Your task to perform on an android device: turn off translation in the chrome app Image 0: 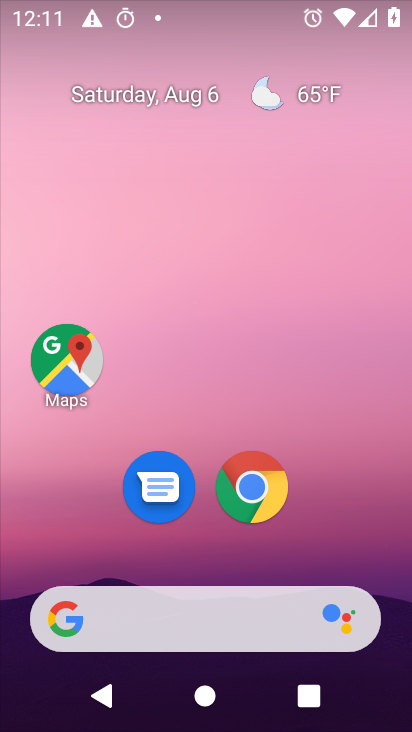
Step 0: click (234, 497)
Your task to perform on an android device: turn off translation in the chrome app Image 1: 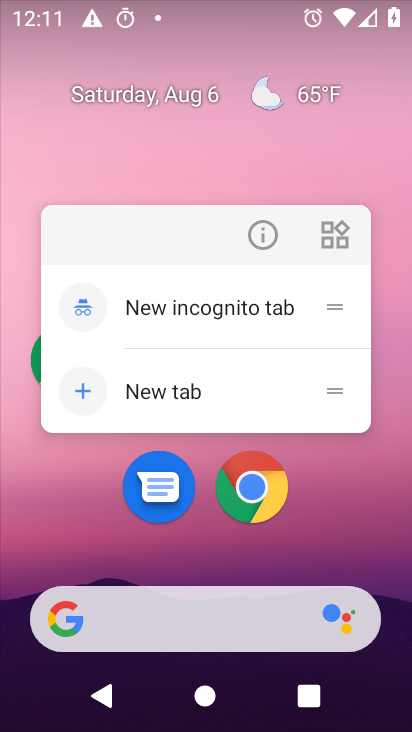
Step 1: click (260, 496)
Your task to perform on an android device: turn off translation in the chrome app Image 2: 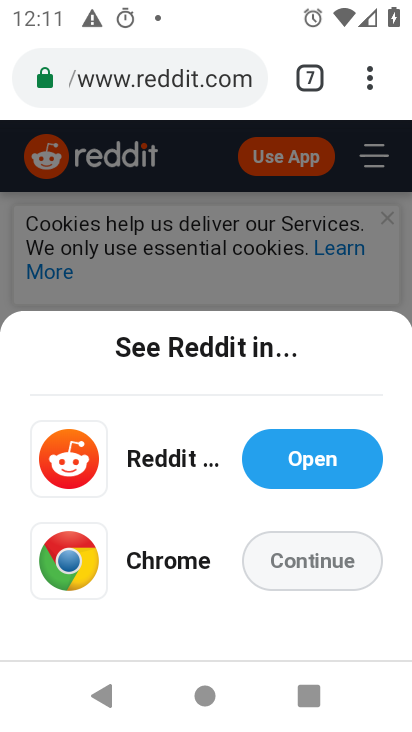
Step 2: drag from (361, 70) to (83, 543)
Your task to perform on an android device: turn off translation in the chrome app Image 3: 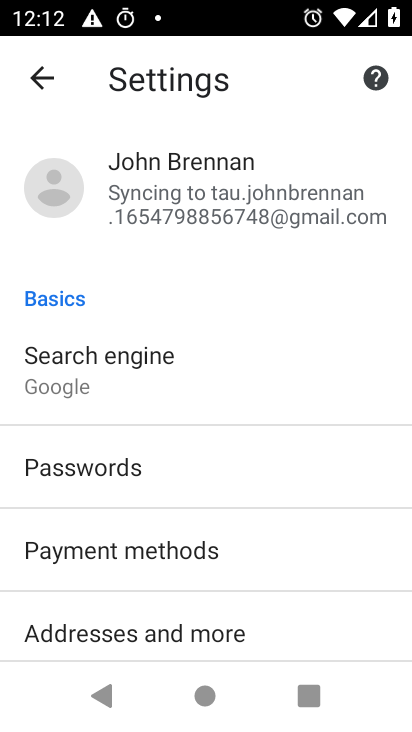
Step 3: drag from (171, 612) to (268, 121)
Your task to perform on an android device: turn off translation in the chrome app Image 4: 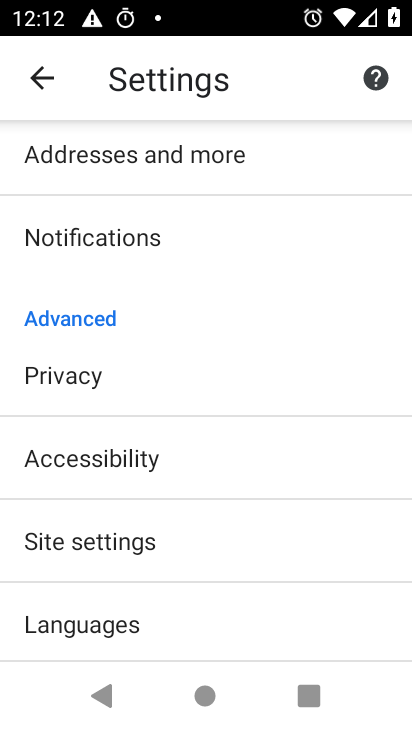
Step 4: click (67, 630)
Your task to perform on an android device: turn off translation in the chrome app Image 5: 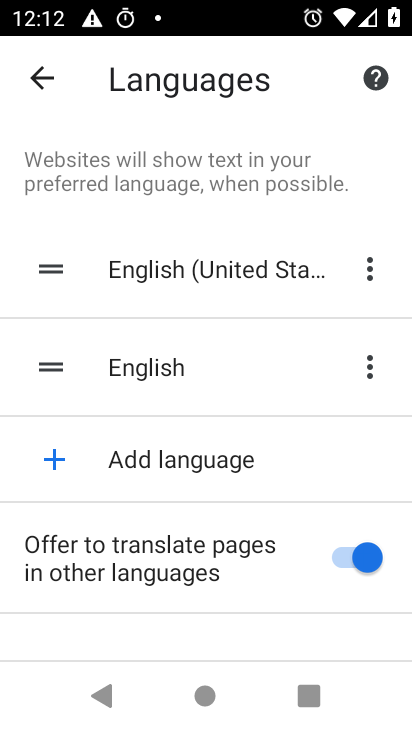
Step 5: click (367, 541)
Your task to perform on an android device: turn off translation in the chrome app Image 6: 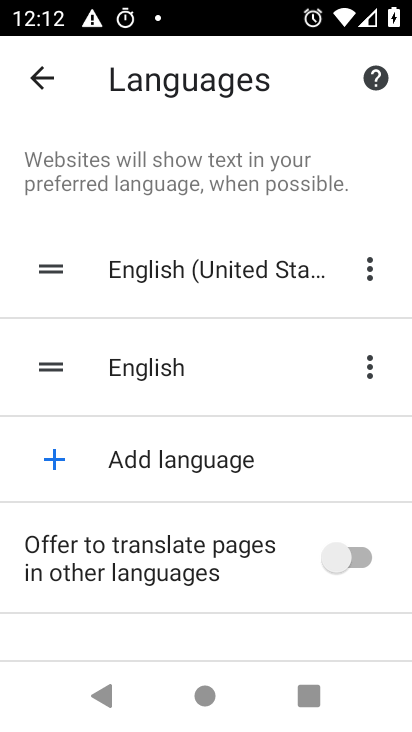
Step 6: task complete